Your task to perform on an android device: Turn off the flashlight Image 0: 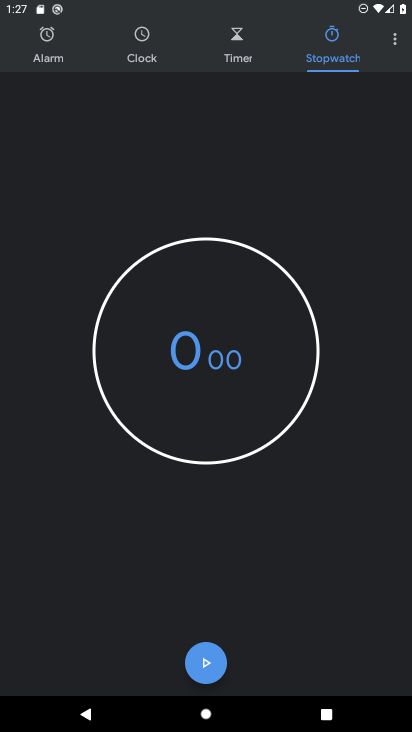
Step 0: drag from (260, 1) to (273, 396)
Your task to perform on an android device: Turn off the flashlight Image 1: 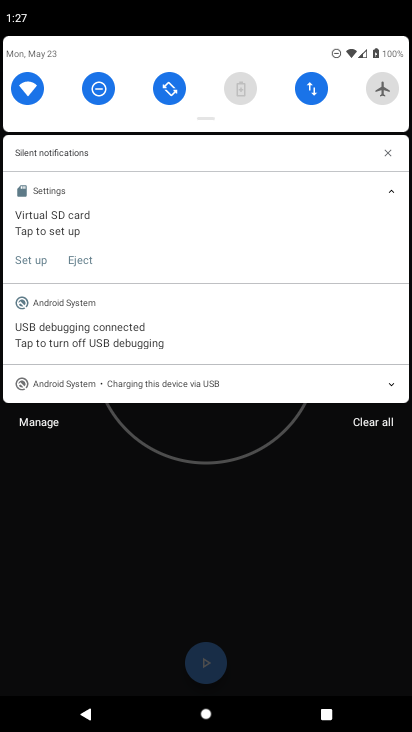
Step 1: task complete